Your task to perform on an android device: Show me popular videos on Youtube Image 0: 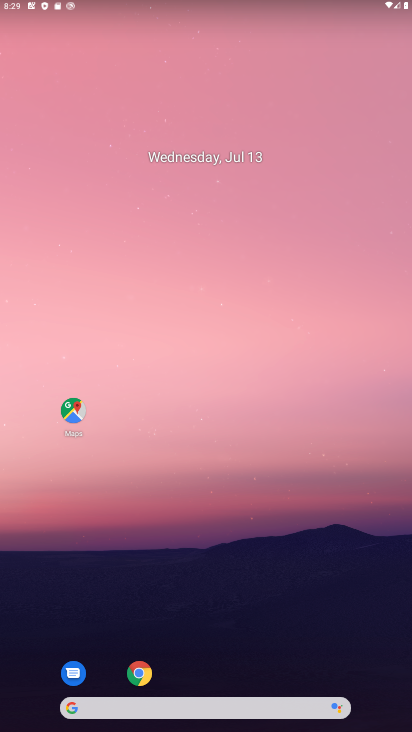
Step 0: drag from (369, 625) to (222, 89)
Your task to perform on an android device: Show me popular videos on Youtube Image 1: 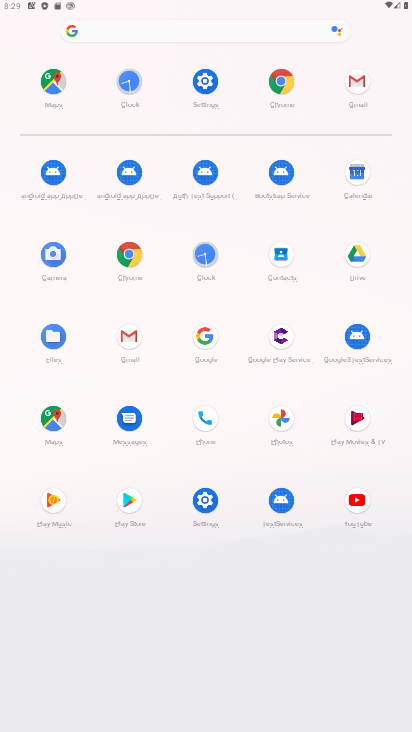
Step 1: click (355, 498)
Your task to perform on an android device: Show me popular videos on Youtube Image 2: 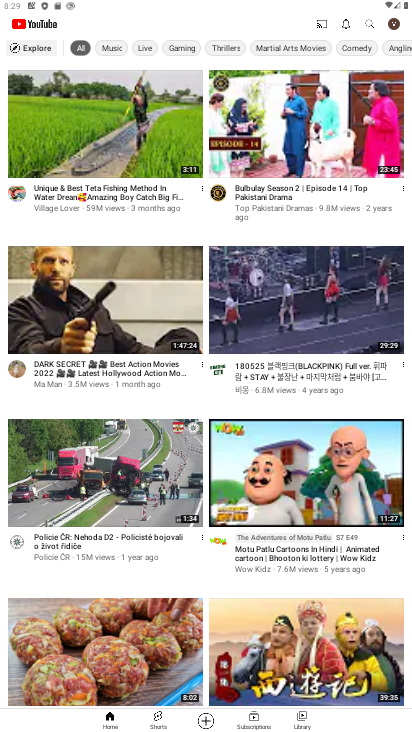
Step 2: click (27, 46)
Your task to perform on an android device: Show me popular videos on Youtube Image 3: 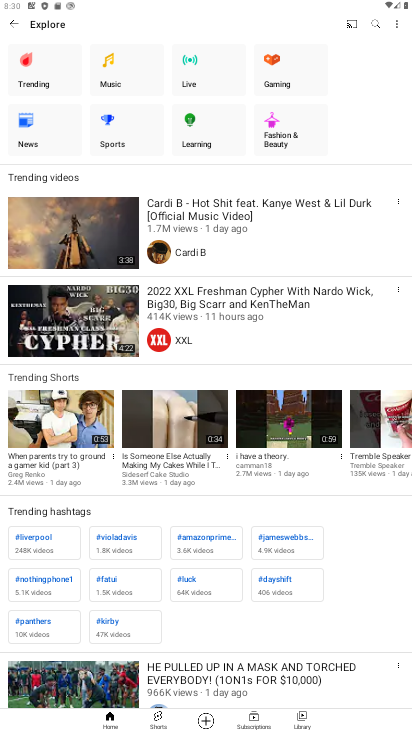
Step 3: click (27, 70)
Your task to perform on an android device: Show me popular videos on Youtube Image 4: 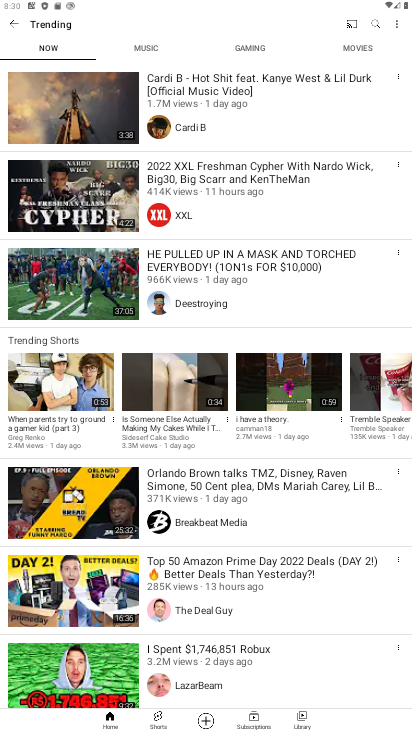
Step 4: click (13, 24)
Your task to perform on an android device: Show me popular videos on Youtube Image 5: 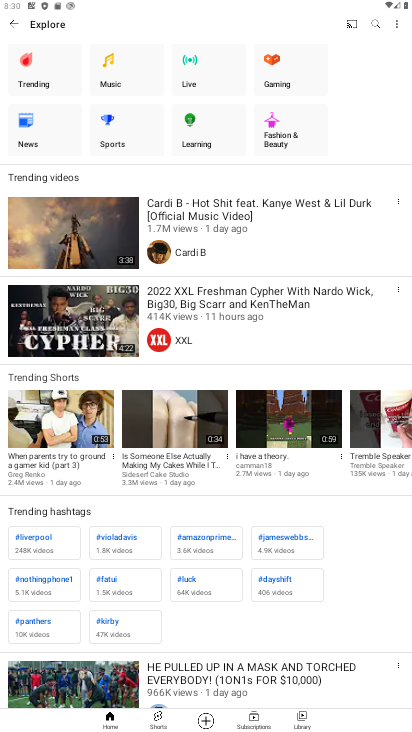
Step 5: click (13, 24)
Your task to perform on an android device: Show me popular videos on Youtube Image 6: 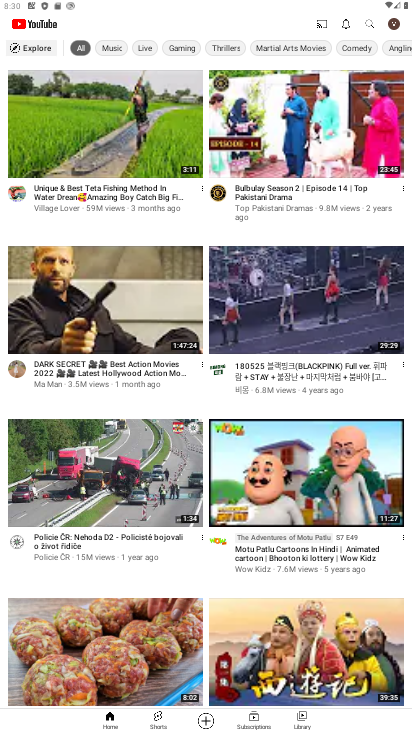
Step 6: drag from (240, 88) to (228, 492)
Your task to perform on an android device: Show me popular videos on Youtube Image 7: 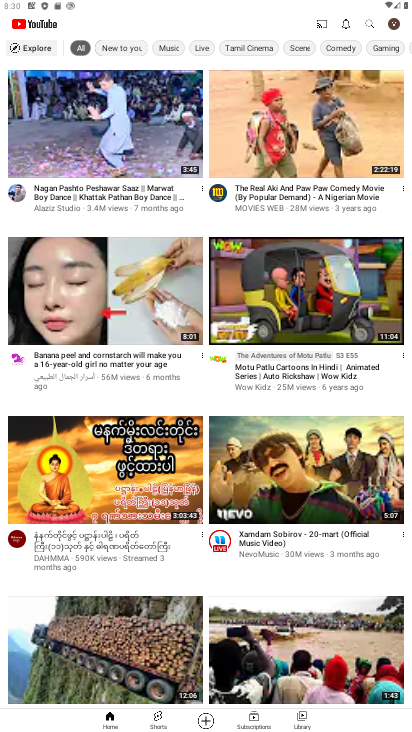
Step 7: drag from (384, 47) to (50, 56)
Your task to perform on an android device: Show me popular videos on Youtube Image 8: 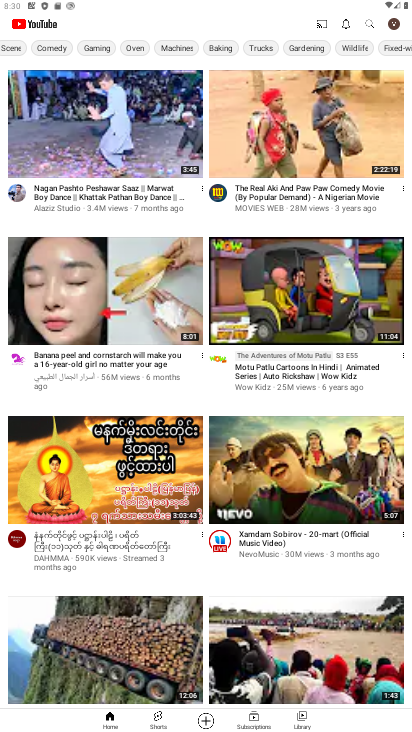
Step 8: drag from (366, 49) to (12, 51)
Your task to perform on an android device: Show me popular videos on Youtube Image 9: 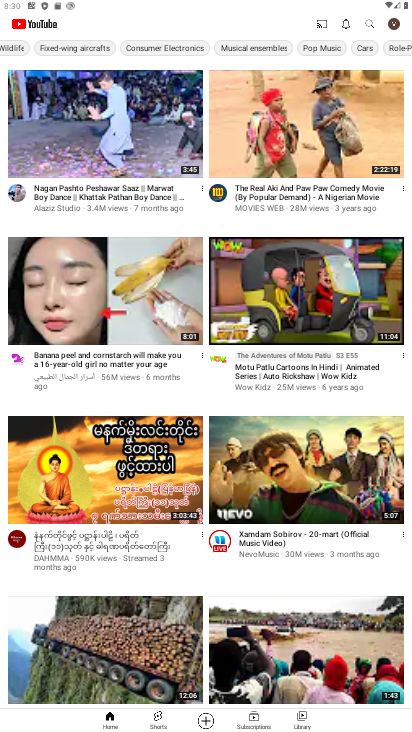
Step 9: drag from (397, 46) to (44, 58)
Your task to perform on an android device: Show me popular videos on Youtube Image 10: 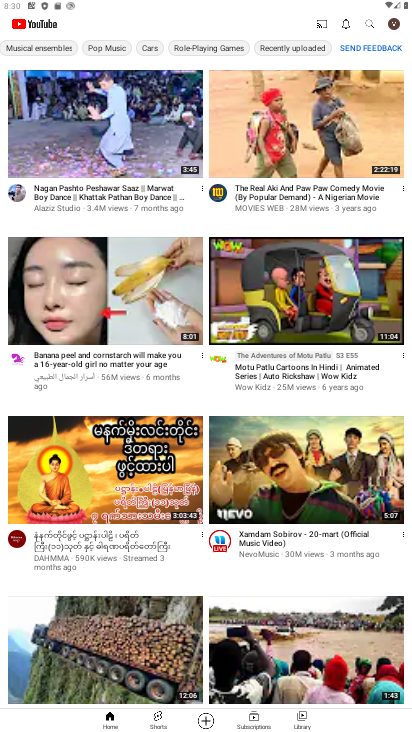
Step 10: drag from (211, 584) to (216, 632)
Your task to perform on an android device: Show me popular videos on Youtube Image 11: 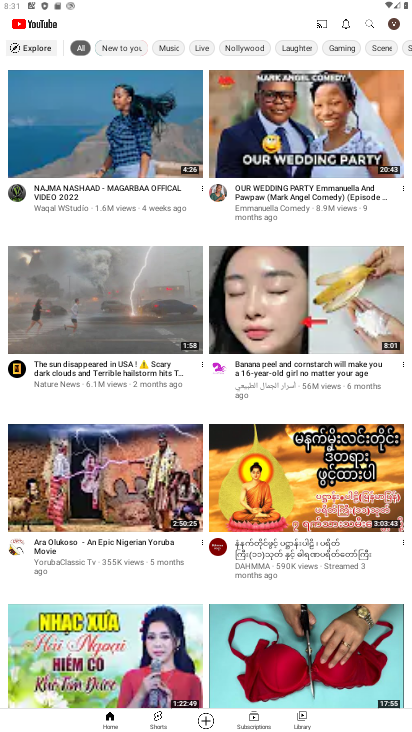
Step 11: click (24, 53)
Your task to perform on an android device: Show me popular videos on Youtube Image 12: 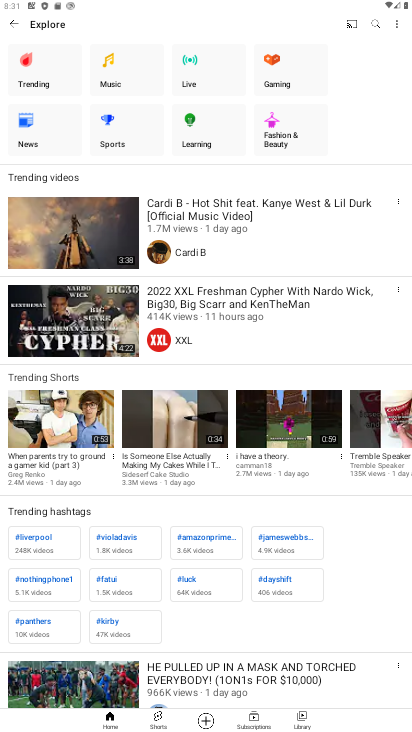
Step 12: click (11, 23)
Your task to perform on an android device: Show me popular videos on Youtube Image 13: 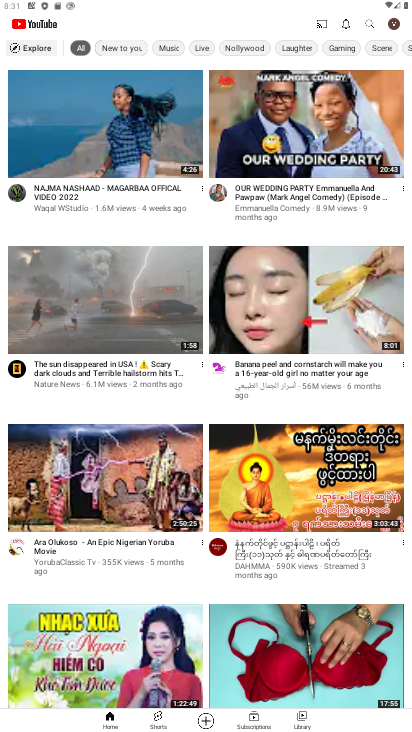
Step 13: task complete